Your task to perform on an android device: turn on showing notifications on the lock screen Image 0: 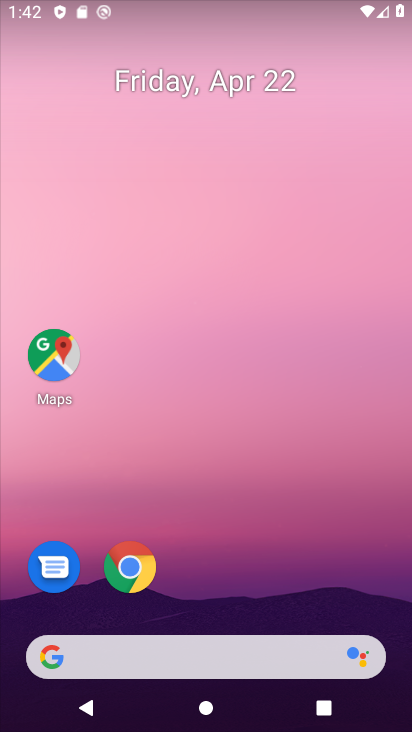
Step 0: drag from (264, 429) to (269, 168)
Your task to perform on an android device: turn on showing notifications on the lock screen Image 1: 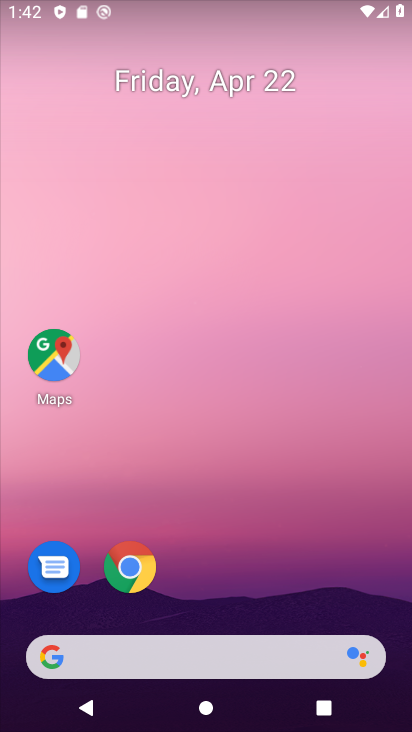
Step 1: drag from (215, 611) to (250, 70)
Your task to perform on an android device: turn on showing notifications on the lock screen Image 2: 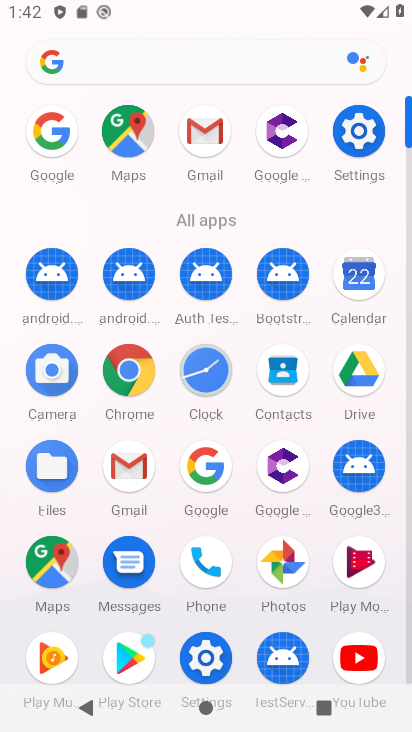
Step 2: click (374, 130)
Your task to perform on an android device: turn on showing notifications on the lock screen Image 3: 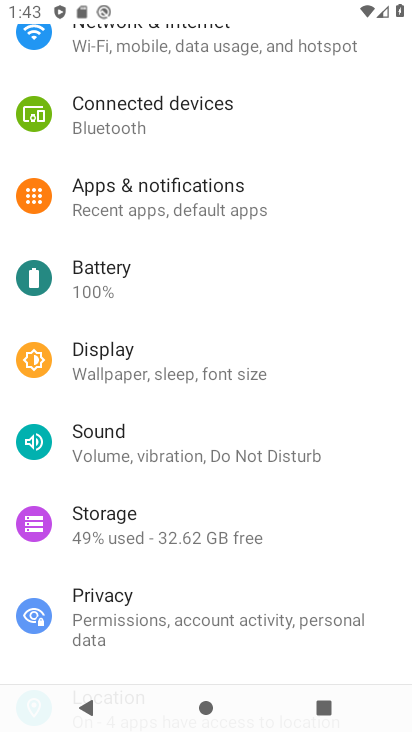
Step 3: drag from (236, 547) to (215, 87)
Your task to perform on an android device: turn on showing notifications on the lock screen Image 4: 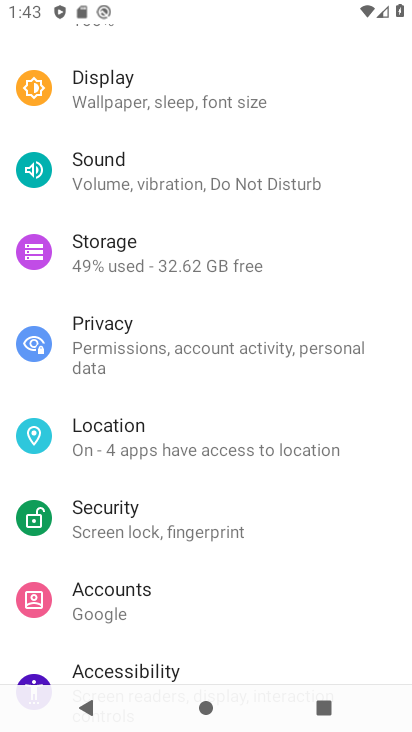
Step 4: drag from (205, 581) to (215, 85)
Your task to perform on an android device: turn on showing notifications on the lock screen Image 5: 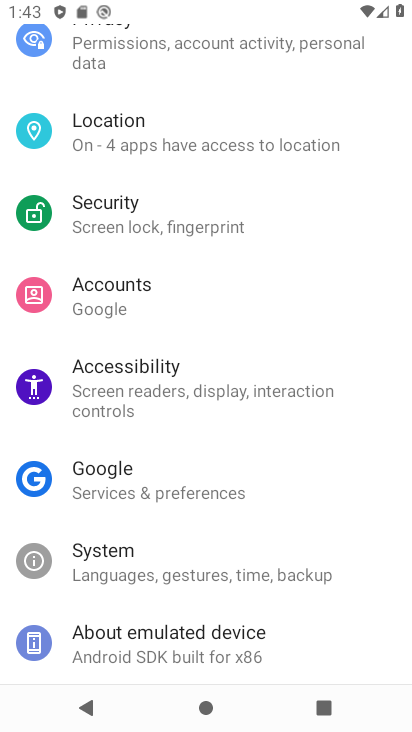
Step 5: drag from (301, 199) to (319, 695)
Your task to perform on an android device: turn on showing notifications on the lock screen Image 6: 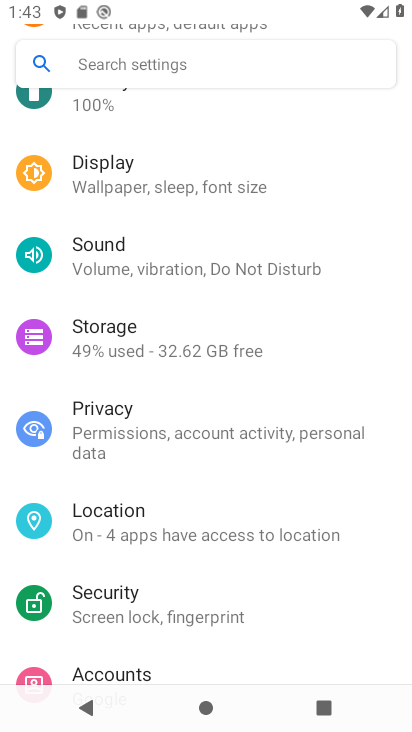
Step 6: drag from (312, 237) to (305, 664)
Your task to perform on an android device: turn on showing notifications on the lock screen Image 7: 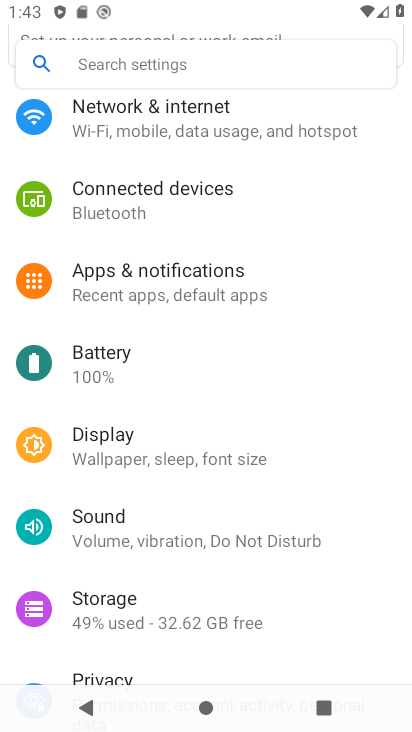
Step 7: click (214, 285)
Your task to perform on an android device: turn on showing notifications on the lock screen Image 8: 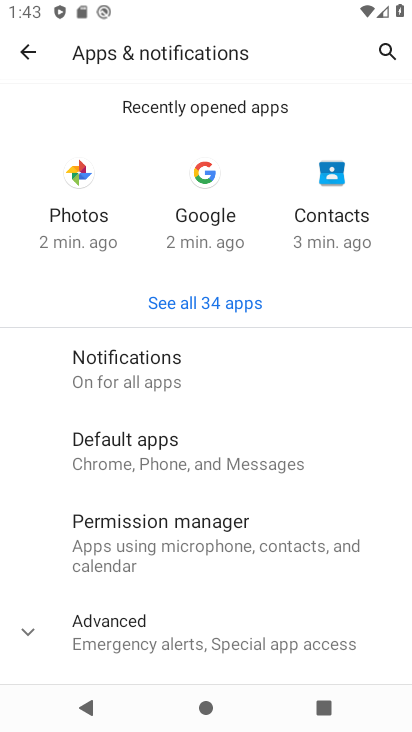
Step 8: click (184, 362)
Your task to perform on an android device: turn on showing notifications on the lock screen Image 9: 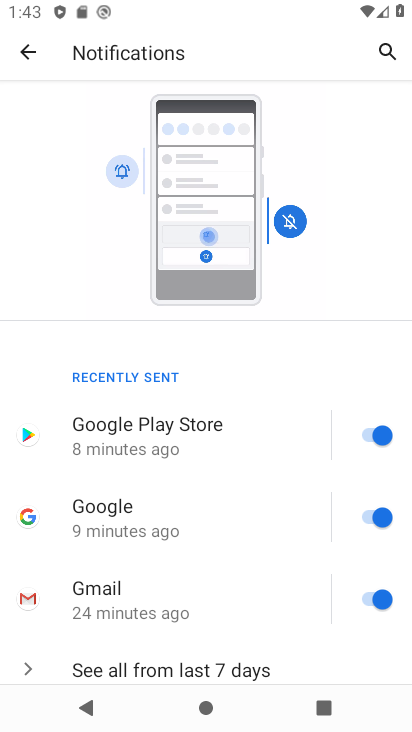
Step 9: drag from (238, 554) to (245, 156)
Your task to perform on an android device: turn on showing notifications on the lock screen Image 10: 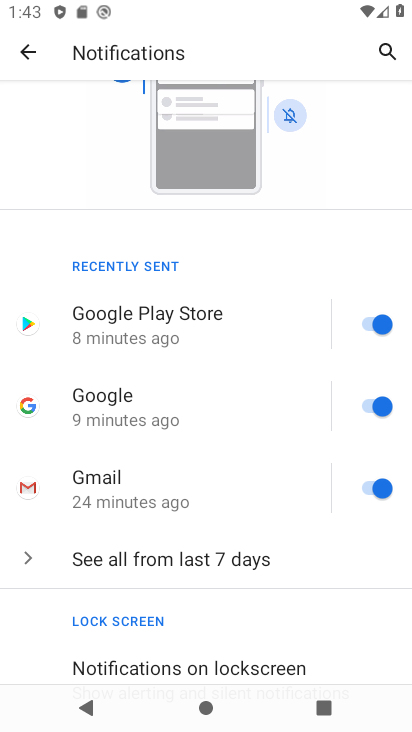
Step 10: drag from (257, 556) to (261, 165)
Your task to perform on an android device: turn on showing notifications on the lock screen Image 11: 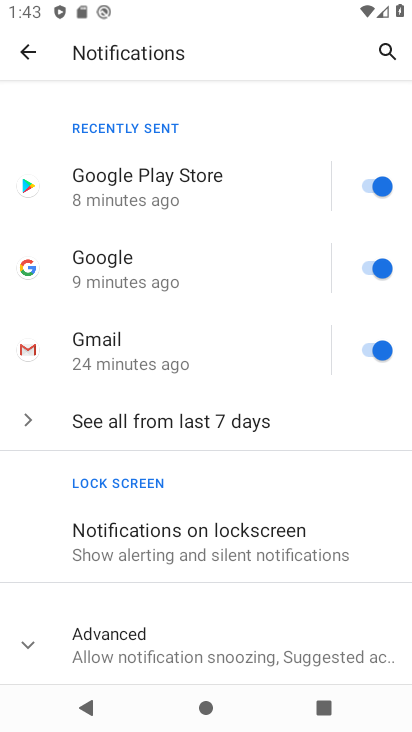
Step 11: click (231, 546)
Your task to perform on an android device: turn on showing notifications on the lock screen Image 12: 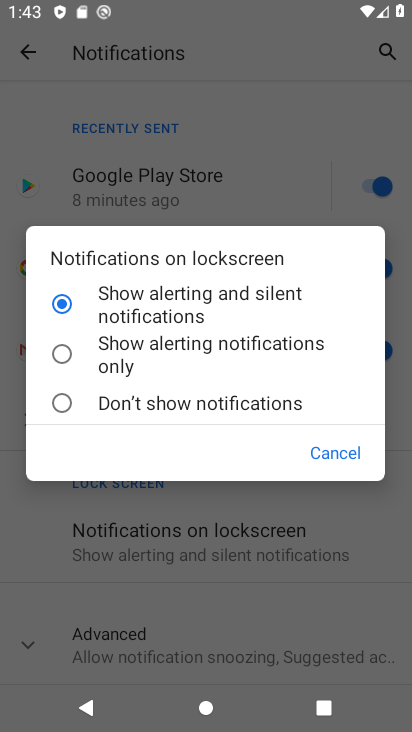
Step 12: task complete